Your task to perform on an android device: open device folders in google photos Image 0: 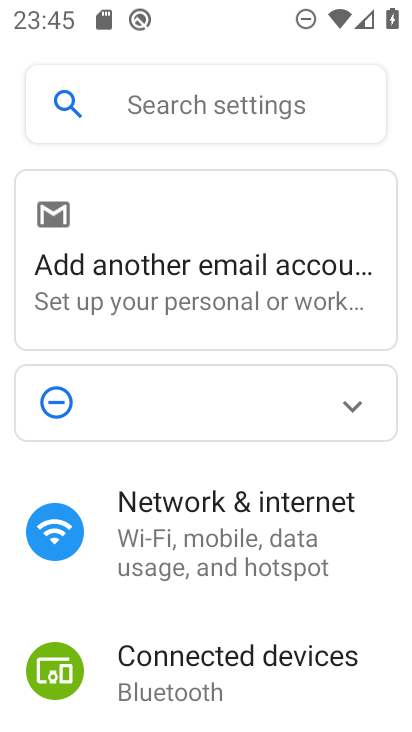
Step 0: press home button
Your task to perform on an android device: open device folders in google photos Image 1: 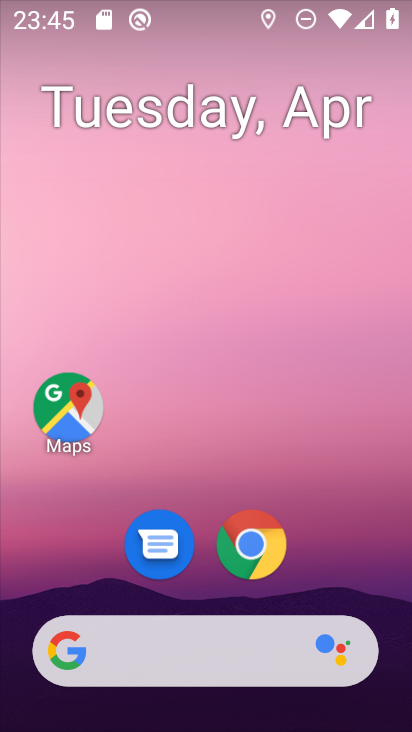
Step 1: drag from (351, 584) to (339, 198)
Your task to perform on an android device: open device folders in google photos Image 2: 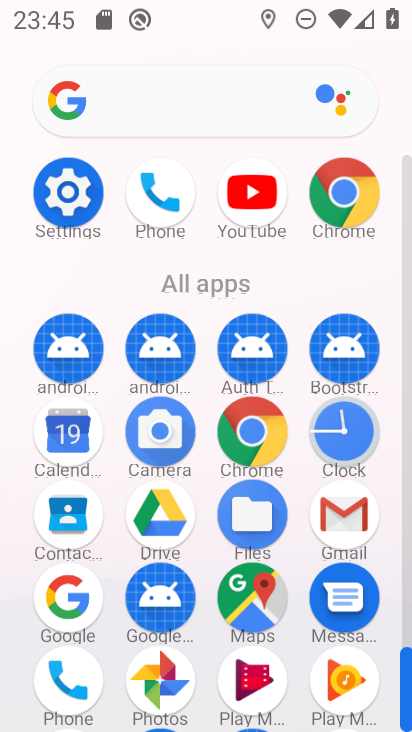
Step 2: click (163, 681)
Your task to perform on an android device: open device folders in google photos Image 3: 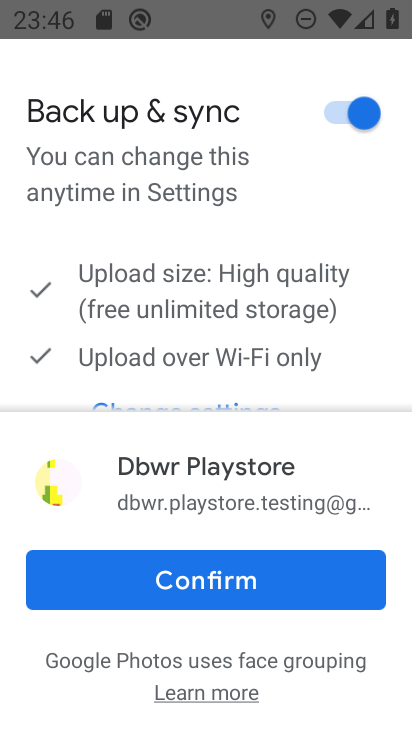
Step 3: click (145, 574)
Your task to perform on an android device: open device folders in google photos Image 4: 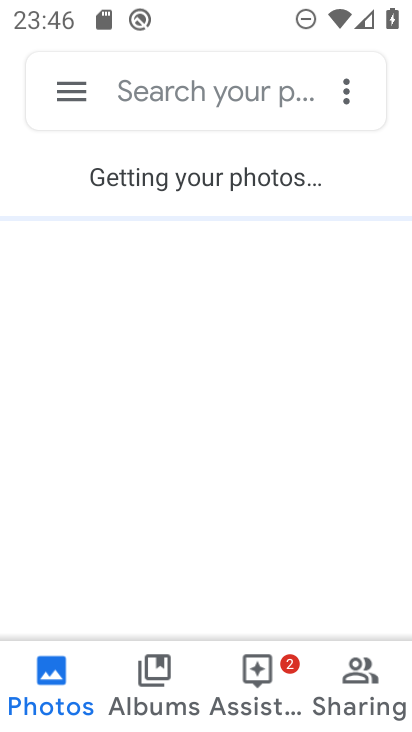
Step 4: click (71, 96)
Your task to perform on an android device: open device folders in google photos Image 5: 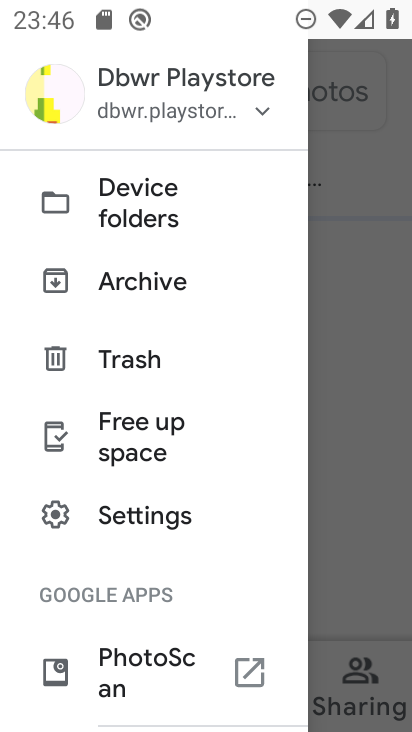
Step 5: click (149, 207)
Your task to perform on an android device: open device folders in google photos Image 6: 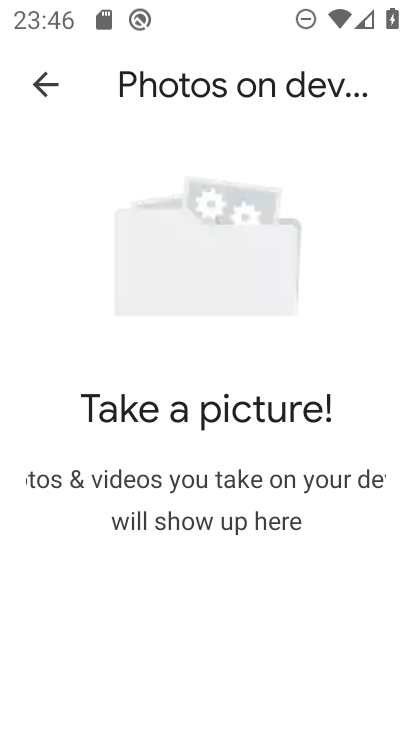
Step 6: task complete